Your task to perform on an android device: turn on improve location accuracy Image 0: 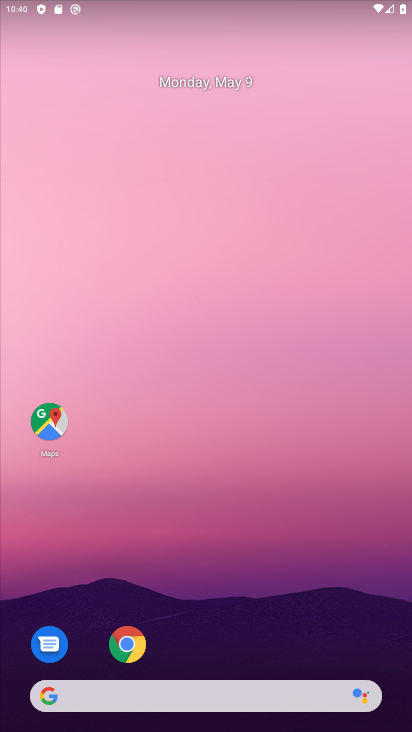
Step 0: drag from (236, 643) to (230, 10)
Your task to perform on an android device: turn on improve location accuracy Image 1: 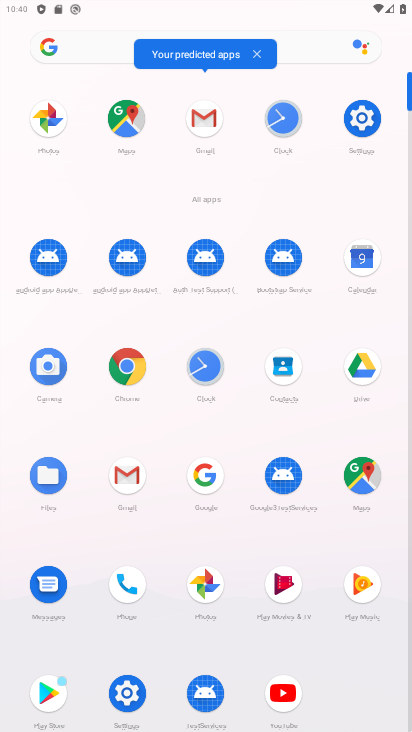
Step 1: click (363, 129)
Your task to perform on an android device: turn on improve location accuracy Image 2: 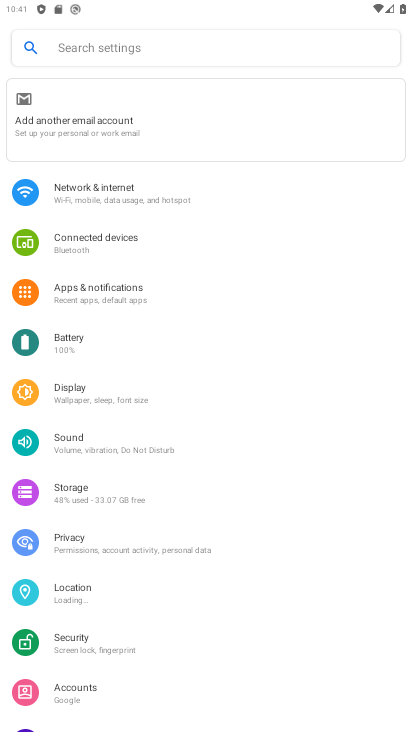
Step 2: click (102, 600)
Your task to perform on an android device: turn on improve location accuracy Image 3: 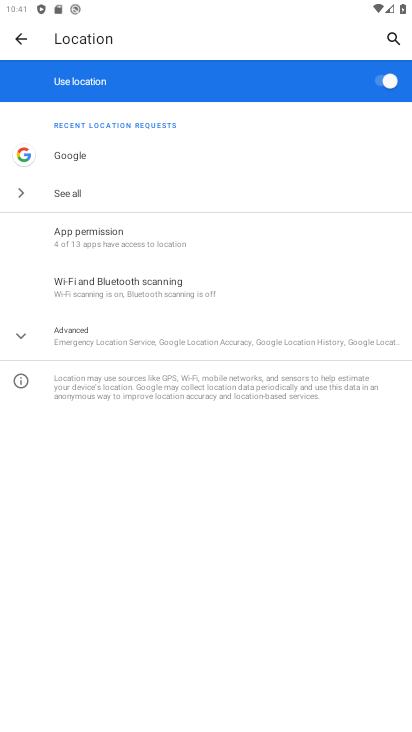
Step 3: click (122, 342)
Your task to perform on an android device: turn on improve location accuracy Image 4: 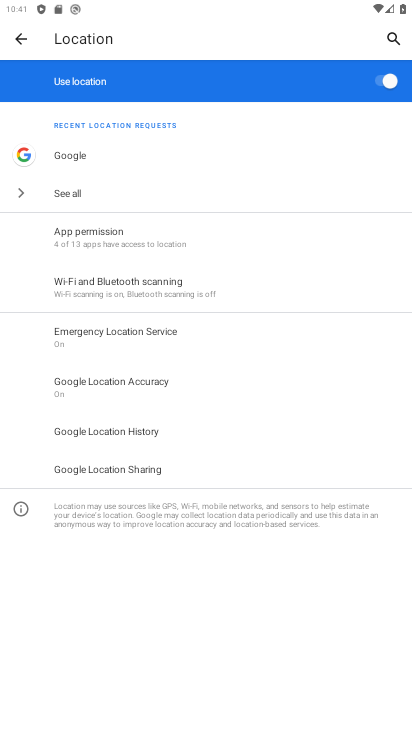
Step 4: click (146, 383)
Your task to perform on an android device: turn on improve location accuracy Image 5: 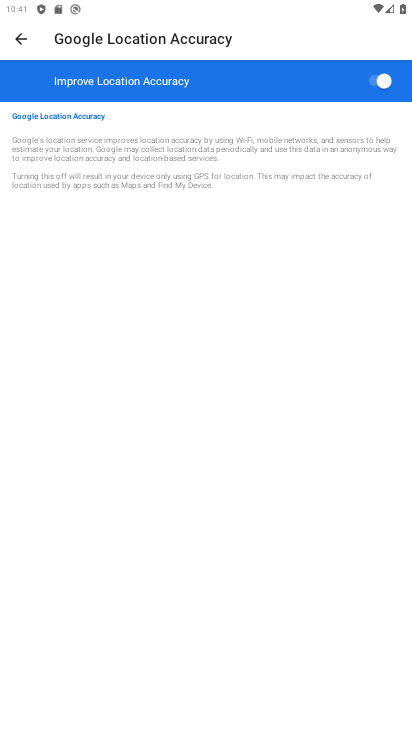
Step 5: task complete